Your task to perform on an android device: Do I have any events this weekend? Image 0: 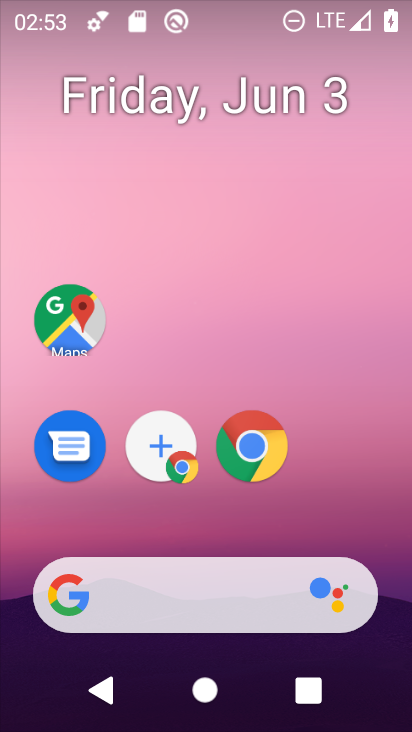
Step 0: drag from (155, 662) to (188, 16)
Your task to perform on an android device: Do I have any events this weekend? Image 1: 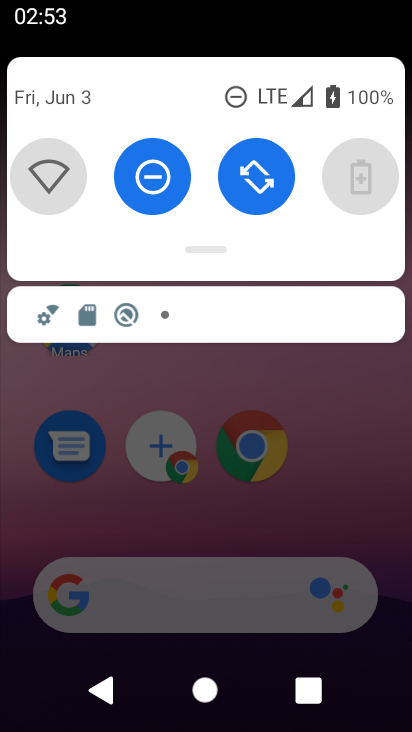
Step 1: drag from (166, 685) to (173, 41)
Your task to perform on an android device: Do I have any events this weekend? Image 2: 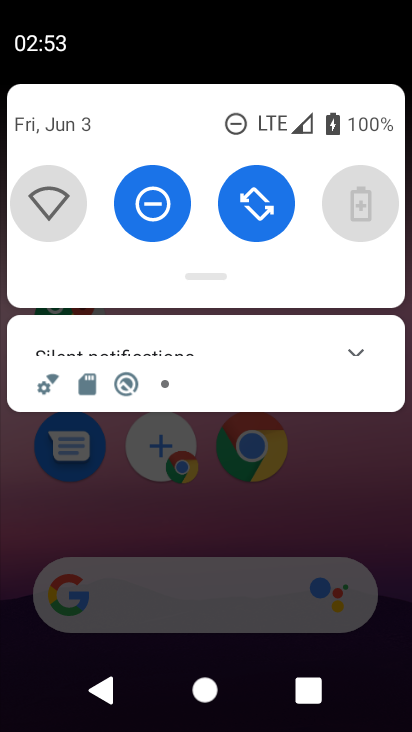
Step 2: drag from (160, 700) to (397, 80)
Your task to perform on an android device: Do I have any events this weekend? Image 3: 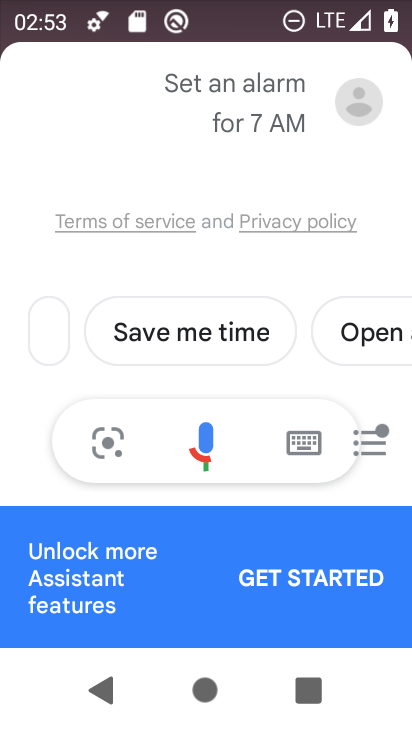
Step 3: press home button
Your task to perform on an android device: Do I have any events this weekend? Image 4: 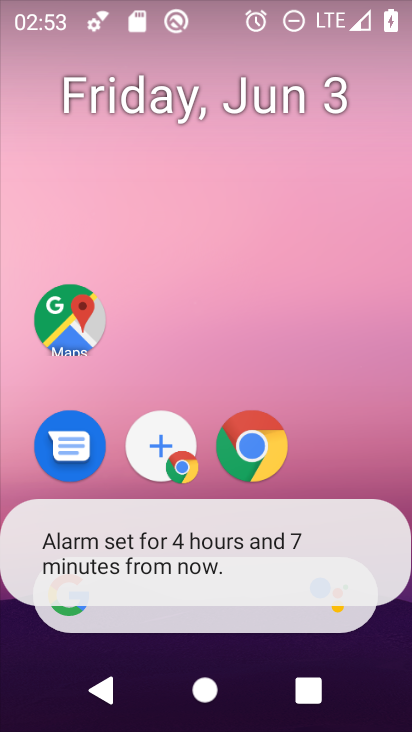
Step 4: press home button
Your task to perform on an android device: Do I have any events this weekend? Image 5: 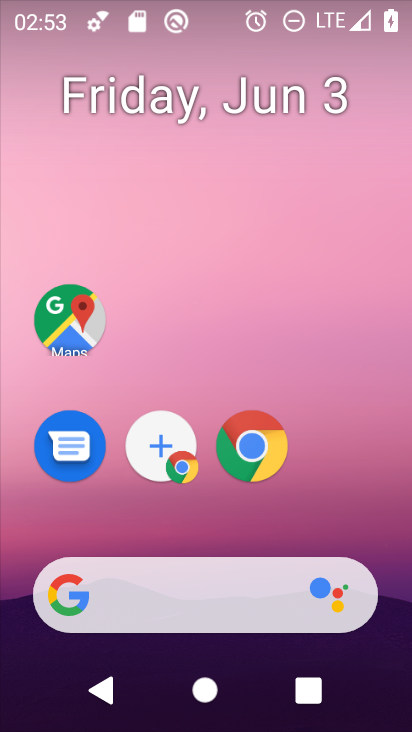
Step 5: drag from (143, 694) to (223, 13)
Your task to perform on an android device: Do I have any events this weekend? Image 6: 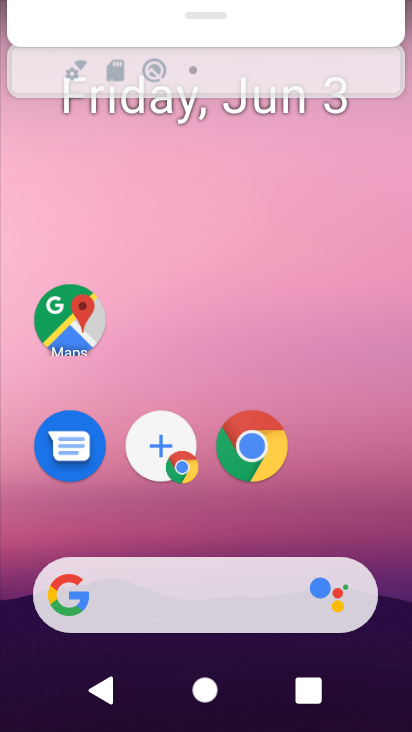
Step 6: drag from (220, 694) to (301, 8)
Your task to perform on an android device: Do I have any events this weekend? Image 7: 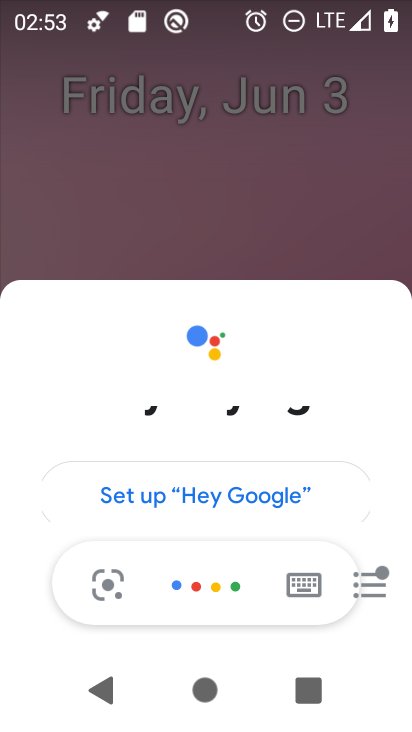
Step 7: press home button
Your task to perform on an android device: Do I have any events this weekend? Image 8: 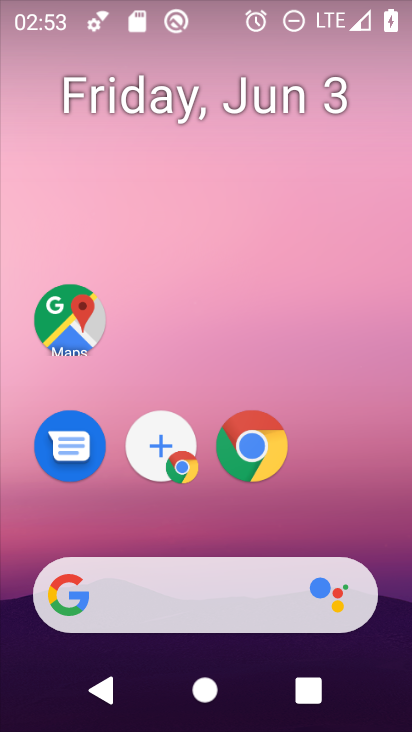
Step 8: drag from (160, 682) to (210, 30)
Your task to perform on an android device: Do I have any events this weekend? Image 9: 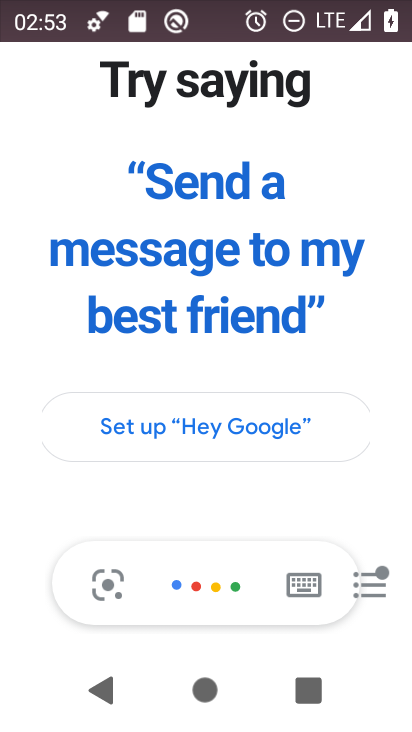
Step 9: press home button
Your task to perform on an android device: Do I have any events this weekend? Image 10: 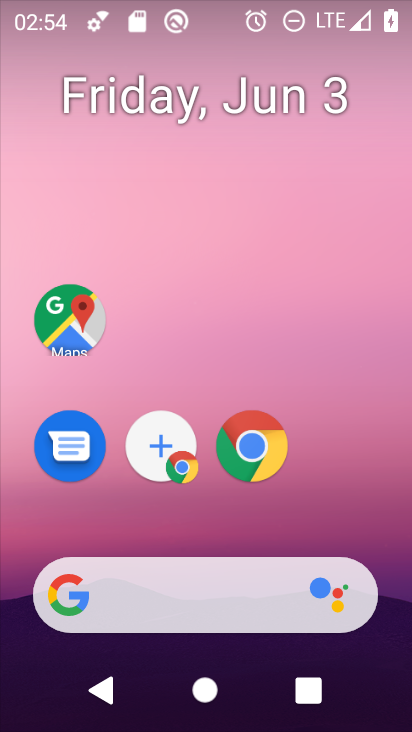
Step 10: drag from (264, 641) to (295, 0)
Your task to perform on an android device: Do I have any events this weekend? Image 11: 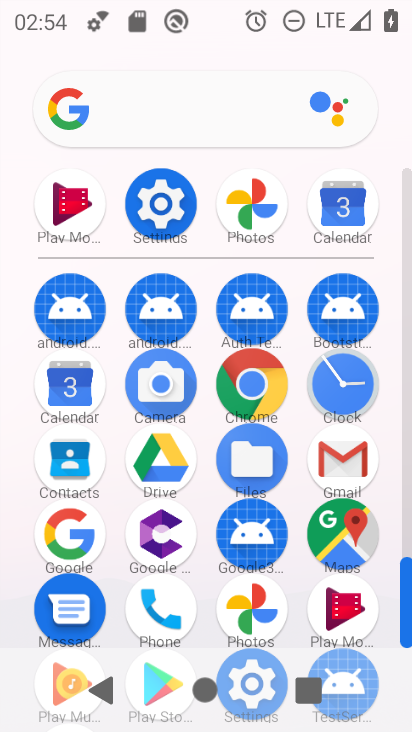
Step 11: click (159, 221)
Your task to perform on an android device: Do I have any events this weekend? Image 12: 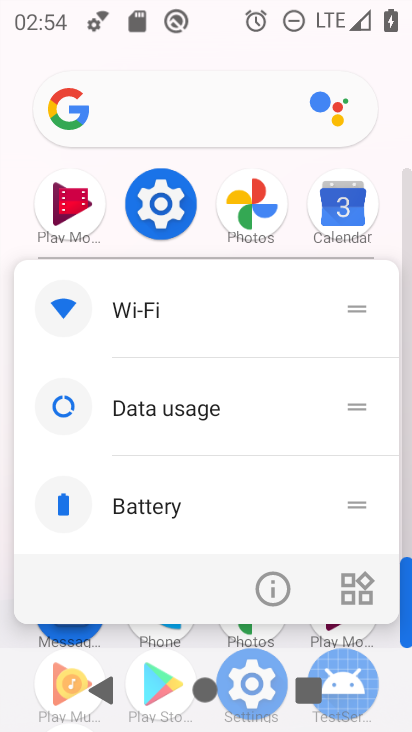
Step 12: press home button
Your task to perform on an android device: Do I have any events this weekend? Image 13: 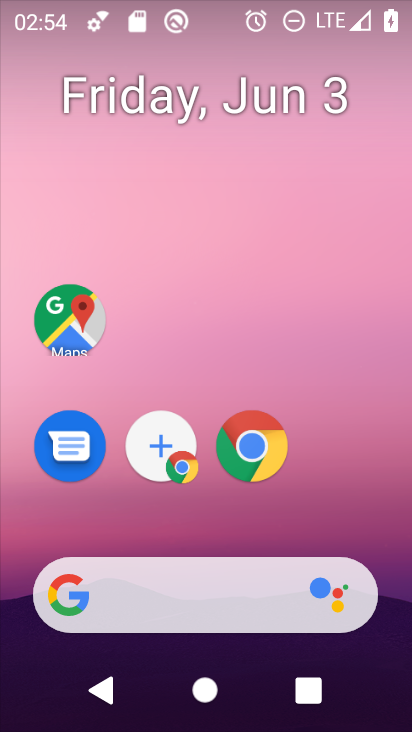
Step 13: drag from (167, 667) to (159, 4)
Your task to perform on an android device: Do I have any events this weekend? Image 14: 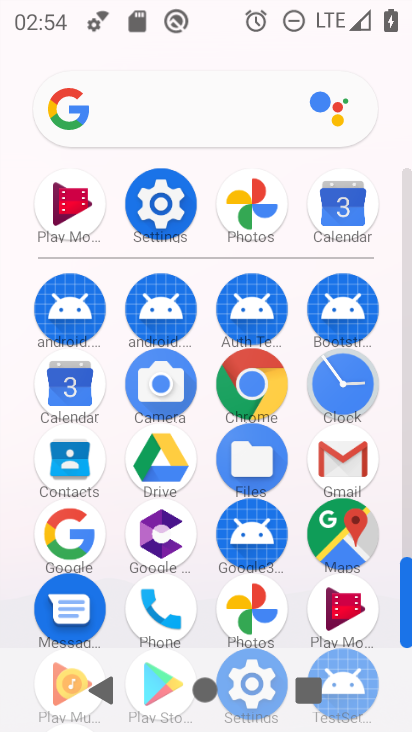
Step 14: click (59, 395)
Your task to perform on an android device: Do I have any events this weekend? Image 15: 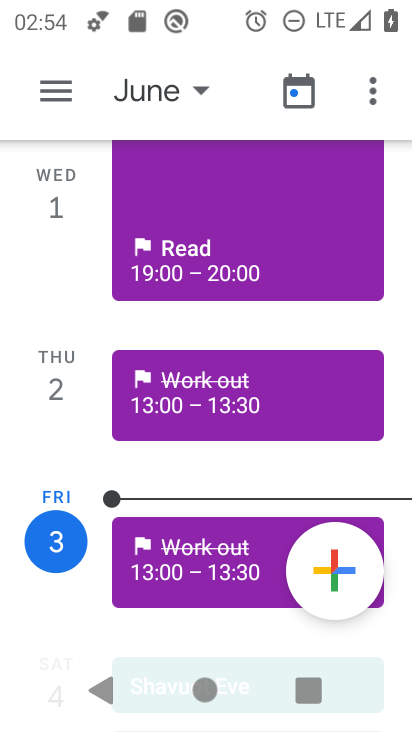
Step 15: task complete